Your task to perform on an android device: Open battery settings Image 0: 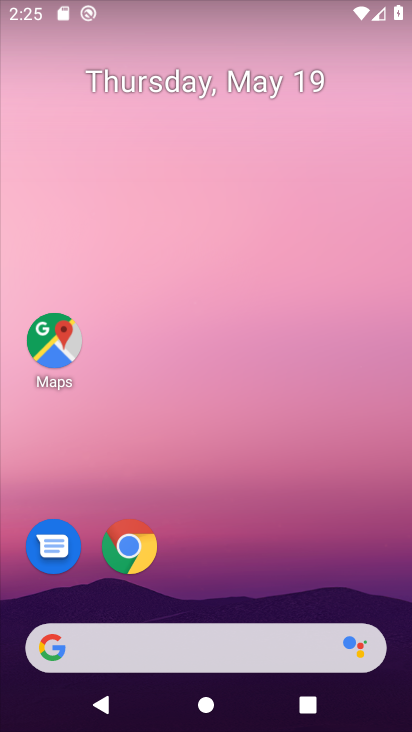
Step 0: drag from (217, 590) to (6, 21)
Your task to perform on an android device: Open battery settings Image 1: 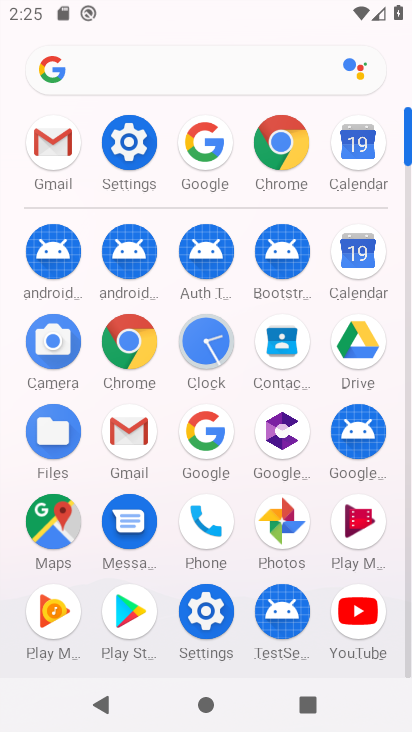
Step 1: click (126, 146)
Your task to perform on an android device: Open battery settings Image 2: 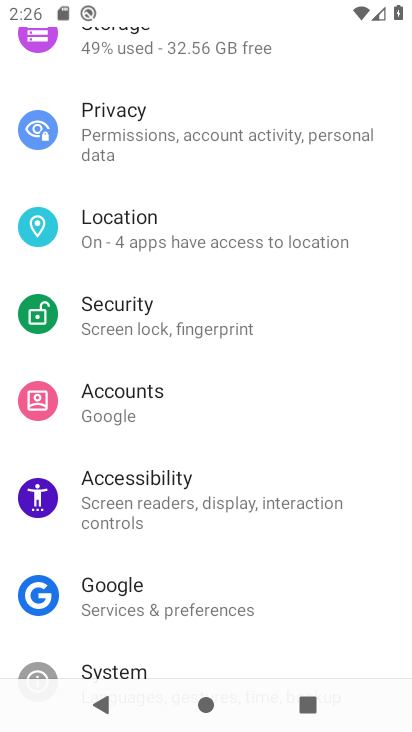
Step 2: drag from (179, 98) to (190, 630)
Your task to perform on an android device: Open battery settings Image 3: 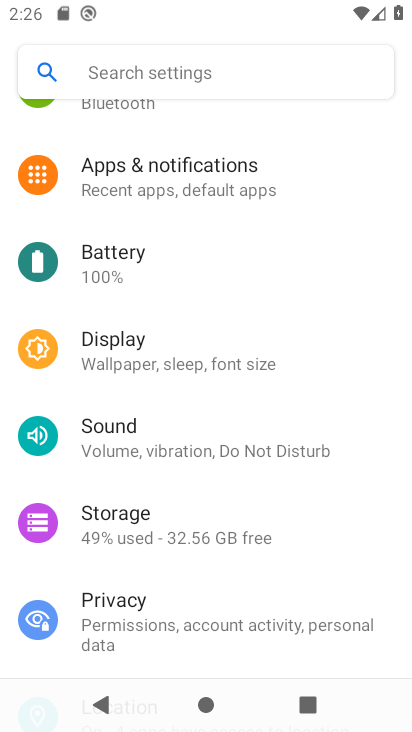
Step 3: click (157, 253)
Your task to perform on an android device: Open battery settings Image 4: 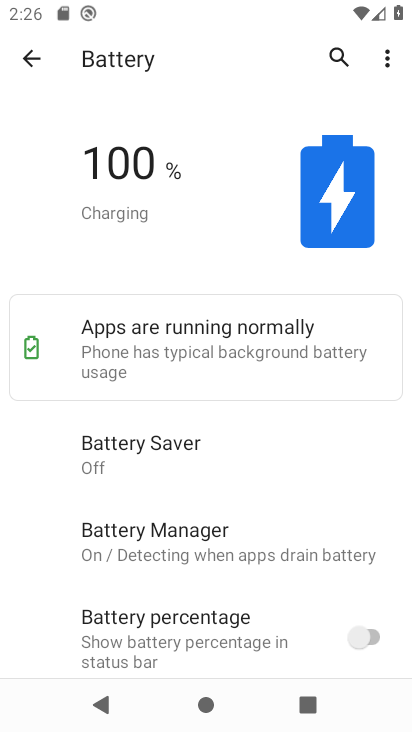
Step 4: drag from (196, 613) to (213, 350)
Your task to perform on an android device: Open battery settings Image 5: 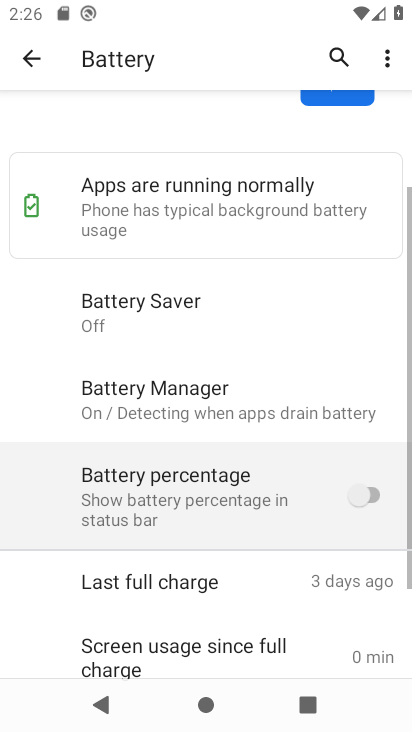
Step 5: click (228, 228)
Your task to perform on an android device: Open battery settings Image 6: 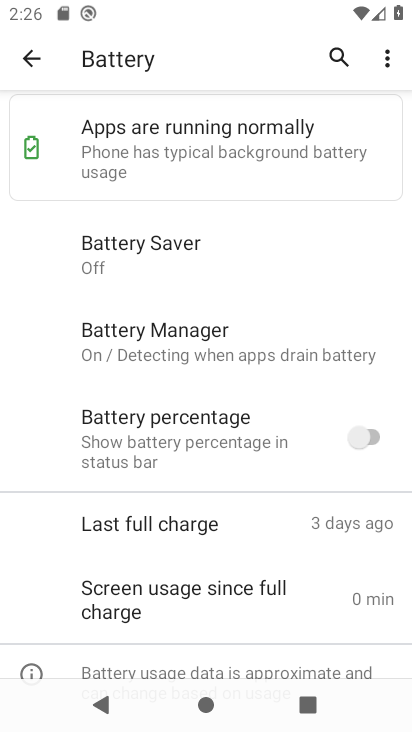
Step 6: task complete